Your task to perform on an android device: Open the web browser Image 0: 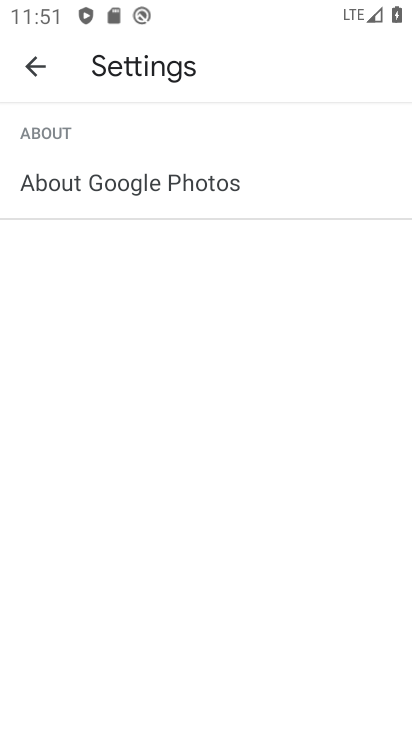
Step 0: press home button
Your task to perform on an android device: Open the web browser Image 1: 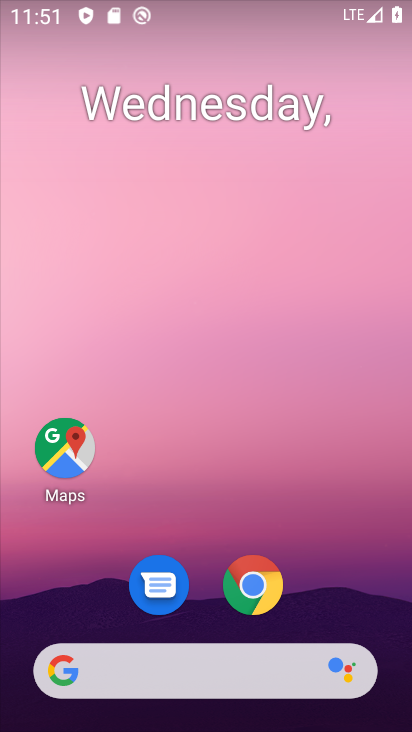
Step 1: click (255, 589)
Your task to perform on an android device: Open the web browser Image 2: 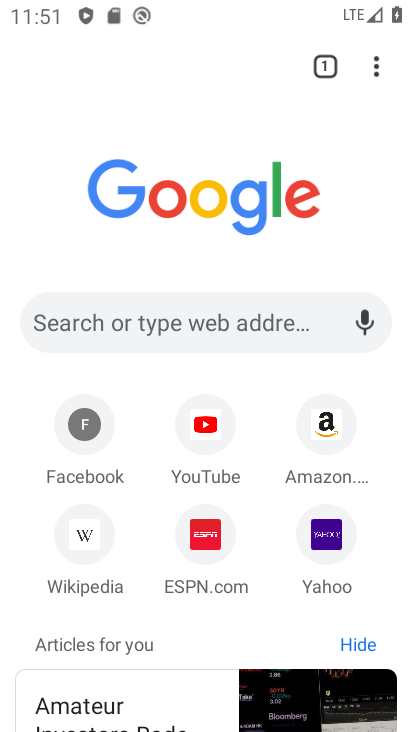
Step 2: task complete